Your task to perform on an android device: Open wifi settings Image 0: 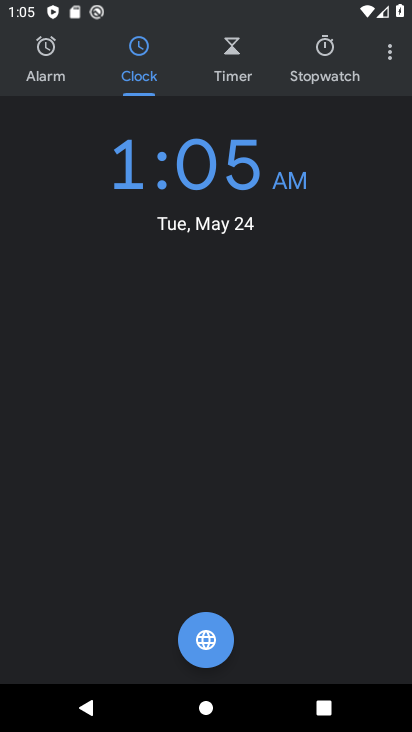
Step 0: press home button
Your task to perform on an android device: Open wifi settings Image 1: 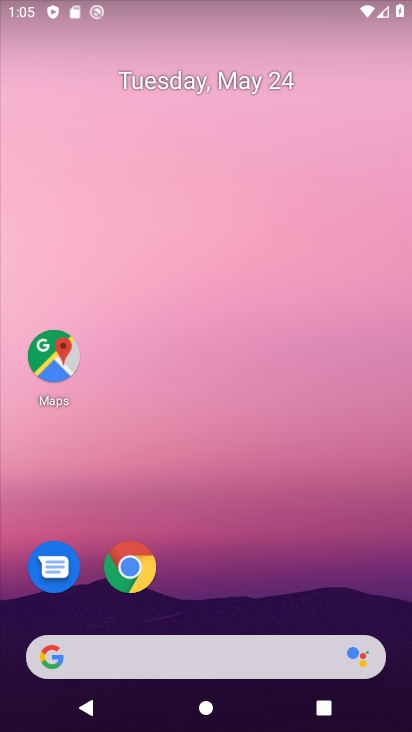
Step 1: drag from (213, 623) to (260, 267)
Your task to perform on an android device: Open wifi settings Image 2: 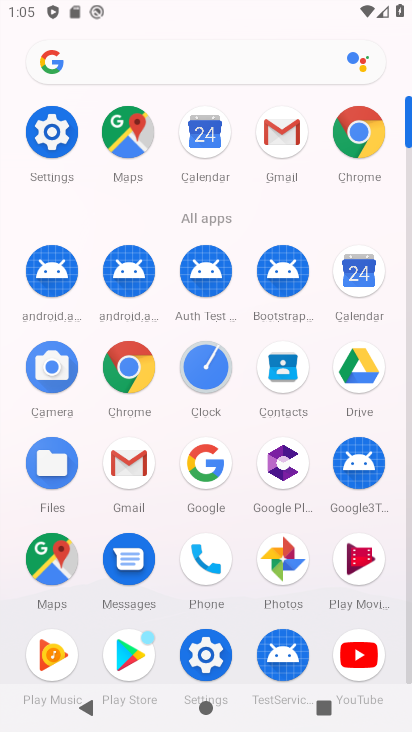
Step 2: click (59, 121)
Your task to perform on an android device: Open wifi settings Image 3: 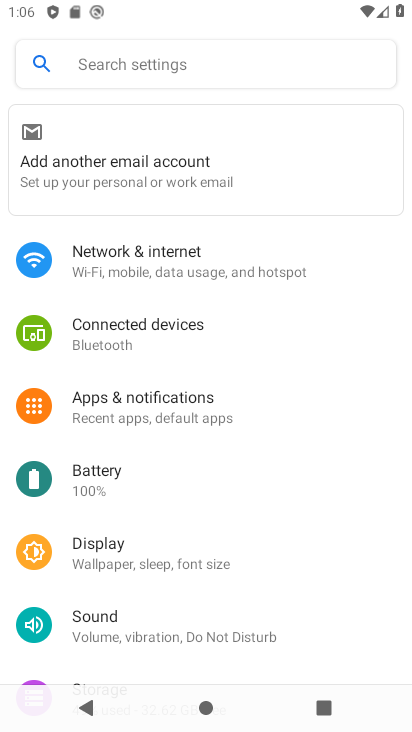
Step 3: click (153, 261)
Your task to perform on an android device: Open wifi settings Image 4: 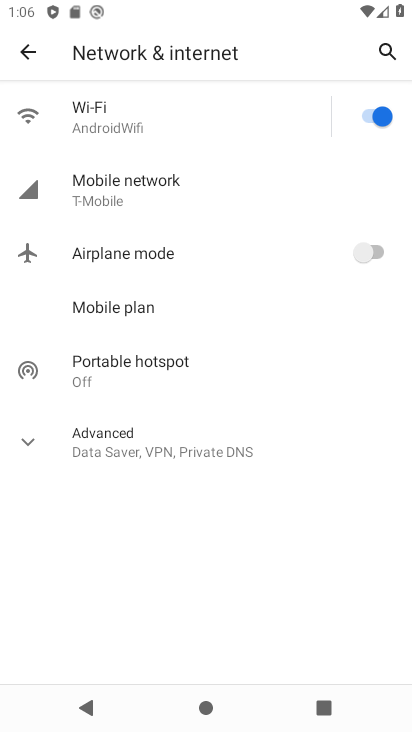
Step 4: click (111, 109)
Your task to perform on an android device: Open wifi settings Image 5: 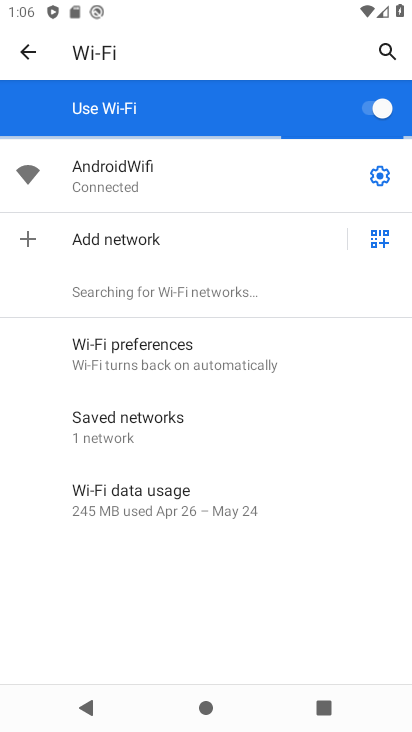
Step 5: task complete